Your task to perform on an android device: Do I have any events tomorrow? Image 0: 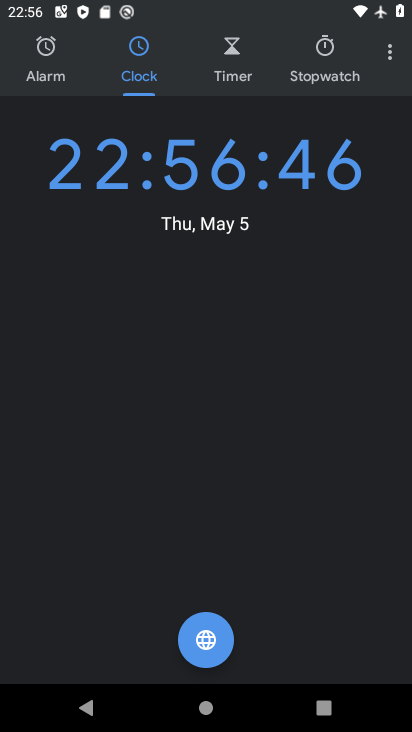
Step 0: press home button
Your task to perform on an android device: Do I have any events tomorrow? Image 1: 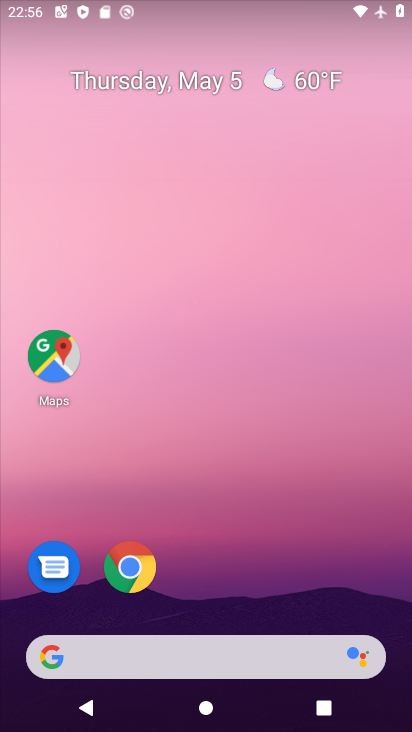
Step 1: drag from (224, 571) to (282, 212)
Your task to perform on an android device: Do I have any events tomorrow? Image 2: 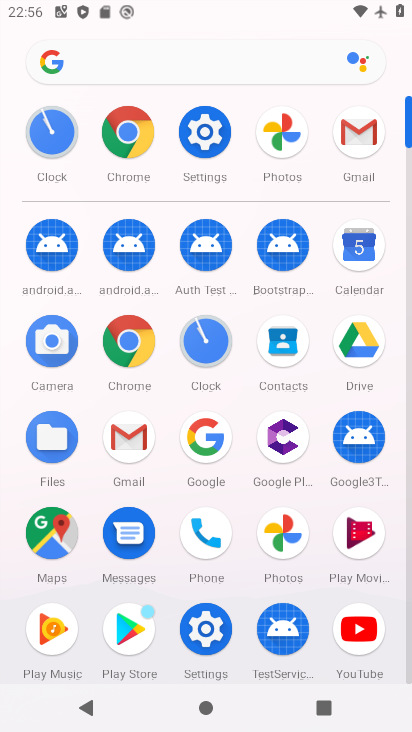
Step 2: click (358, 231)
Your task to perform on an android device: Do I have any events tomorrow? Image 3: 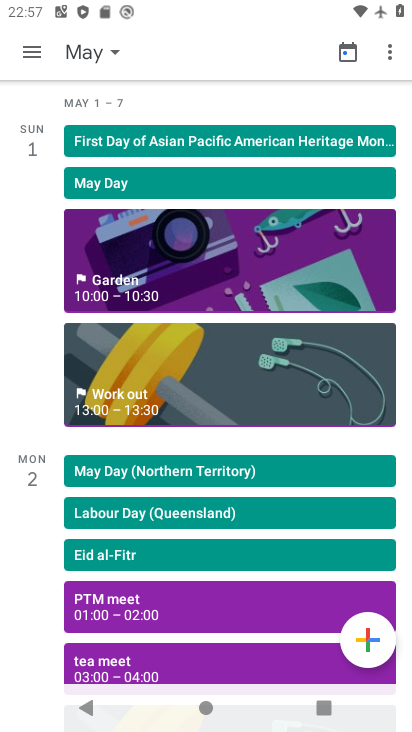
Step 3: click (102, 54)
Your task to perform on an android device: Do I have any events tomorrow? Image 4: 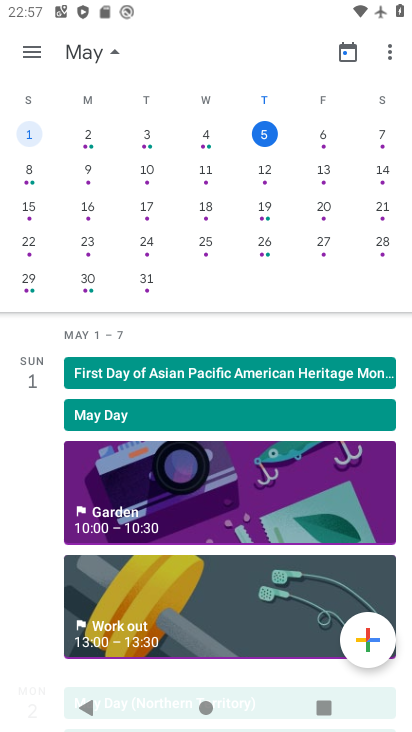
Step 4: click (319, 132)
Your task to perform on an android device: Do I have any events tomorrow? Image 5: 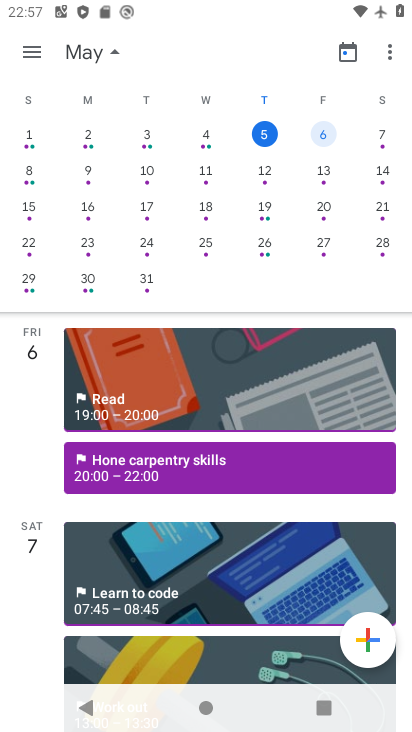
Step 5: task complete